Your task to perform on an android device: Go to Amazon Image 0: 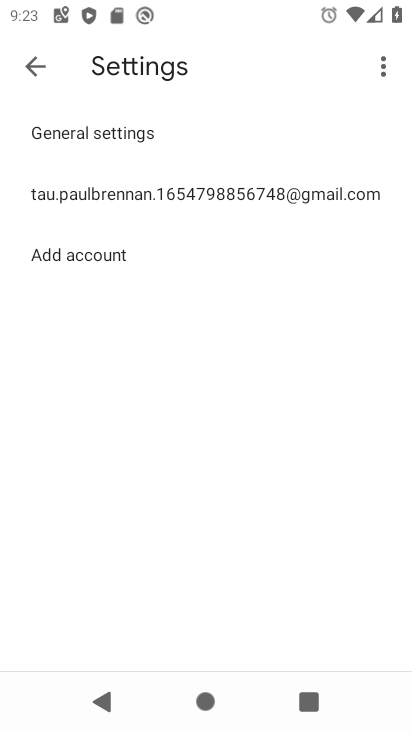
Step 0: press home button
Your task to perform on an android device: Go to Amazon Image 1: 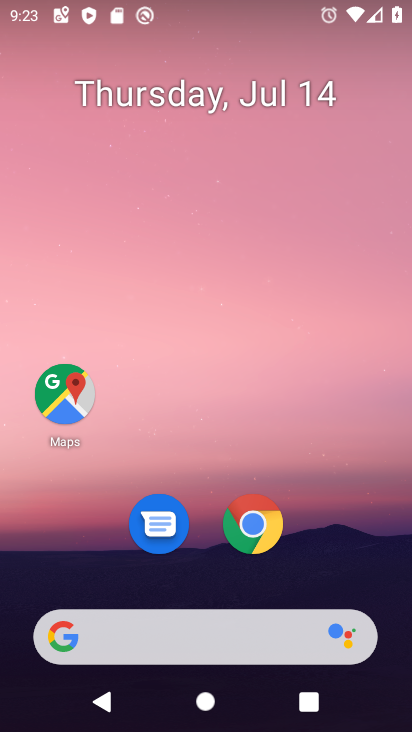
Step 1: click (255, 527)
Your task to perform on an android device: Go to Amazon Image 2: 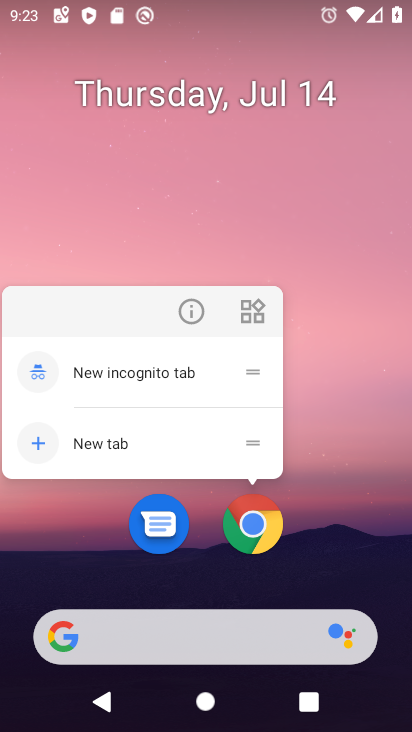
Step 2: click (255, 516)
Your task to perform on an android device: Go to Amazon Image 3: 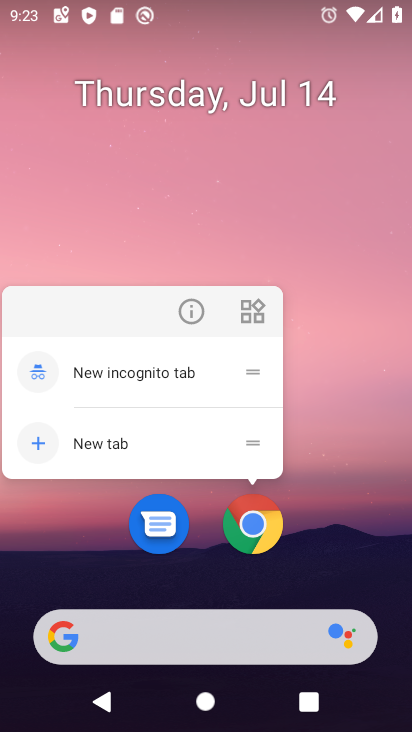
Step 3: click (257, 507)
Your task to perform on an android device: Go to Amazon Image 4: 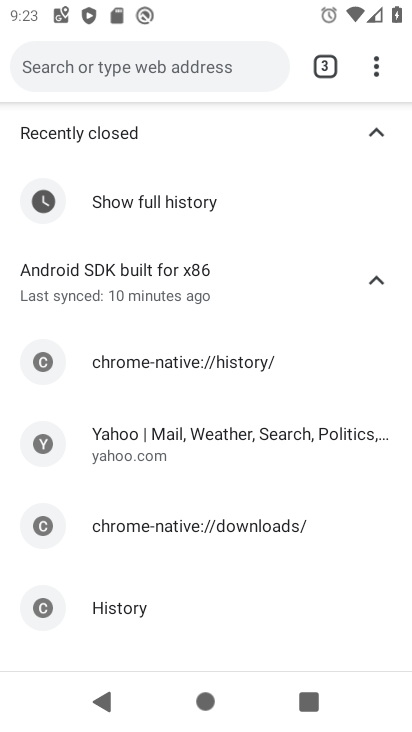
Step 4: press back button
Your task to perform on an android device: Go to Amazon Image 5: 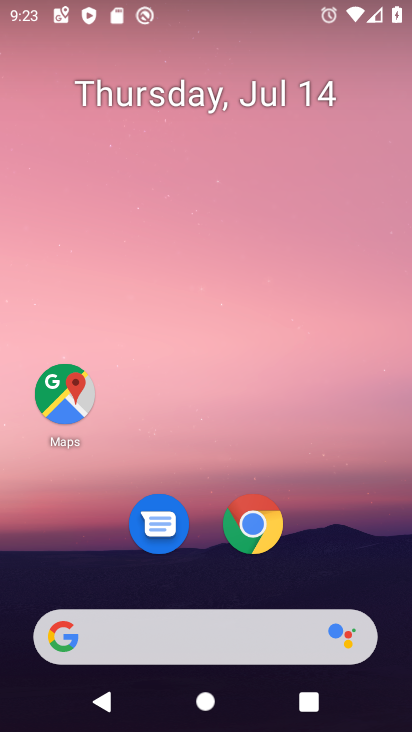
Step 5: click (252, 543)
Your task to perform on an android device: Go to Amazon Image 6: 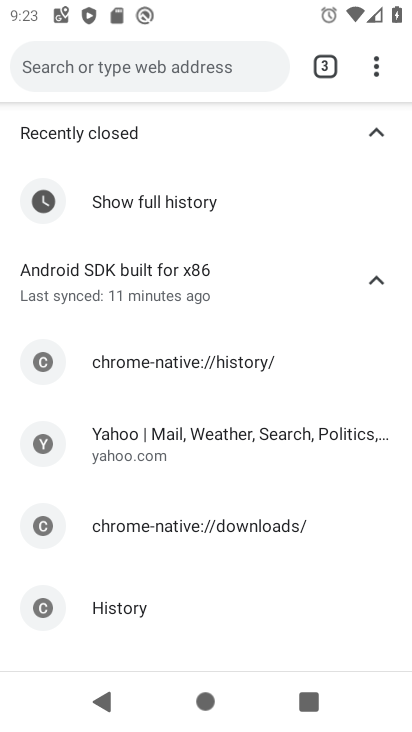
Step 6: click (379, 71)
Your task to perform on an android device: Go to Amazon Image 7: 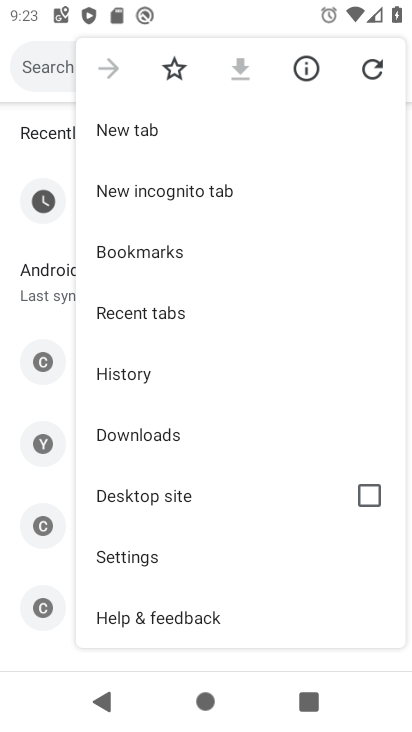
Step 7: click (257, 126)
Your task to perform on an android device: Go to Amazon Image 8: 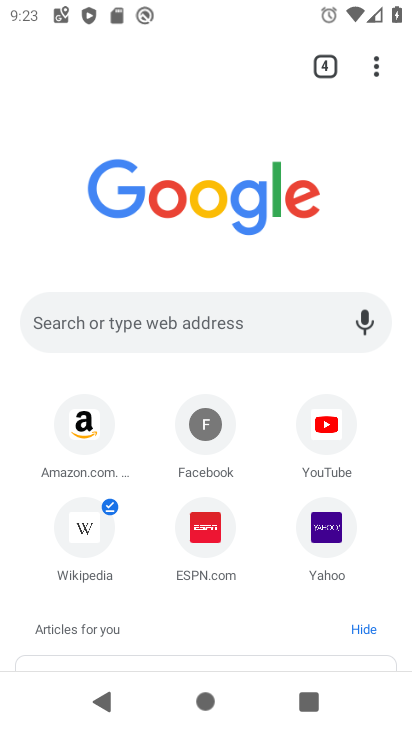
Step 8: click (81, 420)
Your task to perform on an android device: Go to Amazon Image 9: 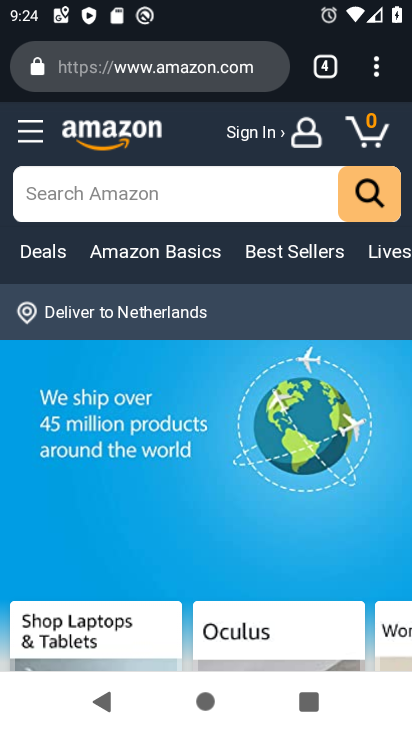
Step 9: task complete